Your task to perform on an android device: What's the weather going to be tomorrow? Image 0: 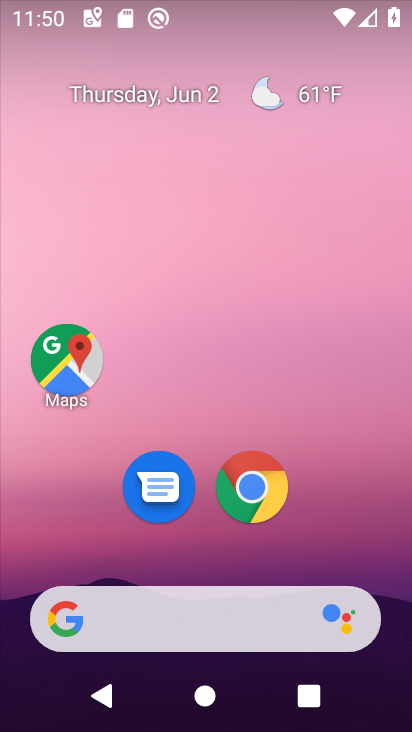
Step 0: drag from (339, 544) to (227, 121)
Your task to perform on an android device: What's the weather going to be tomorrow? Image 1: 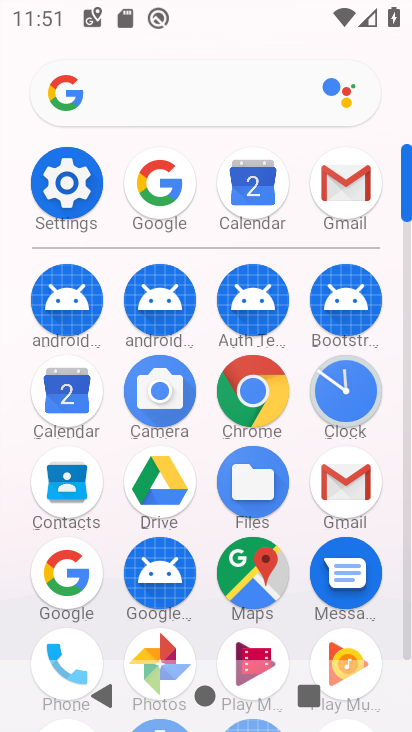
Step 1: click (155, 181)
Your task to perform on an android device: What's the weather going to be tomorrow? Image 2: 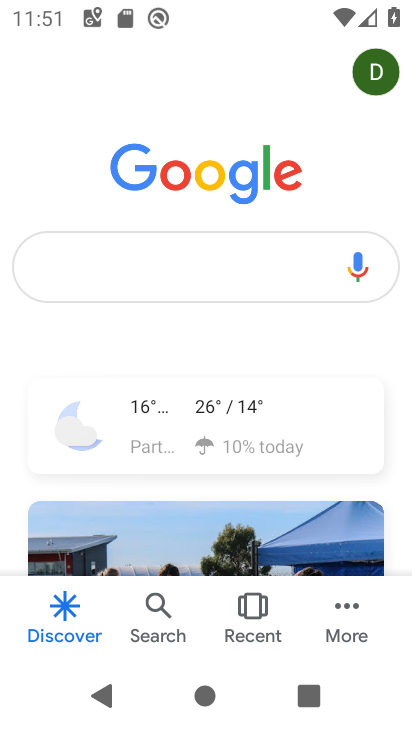
Step 2: click (157, 249)
Your task to perform on an android device: What's the weather going to be tomorrow? Image 3: 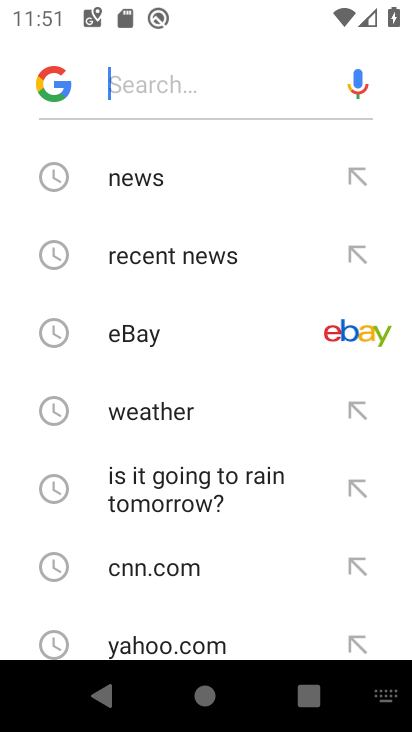
Step 3: type "What's the weather going to be tomorrow?"
Your task to perform on an android device: What's the weather going to be tomorrow? Image 4: 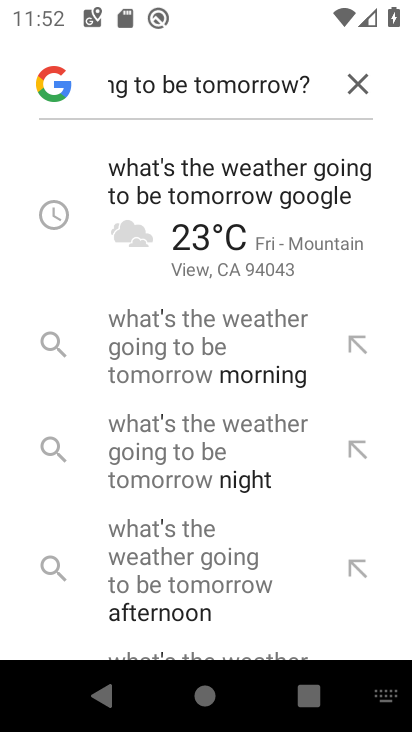
Step 4: click (228, 175)
Your task to perform on an android device: What's the weather going to be tomorrow? Image 5: 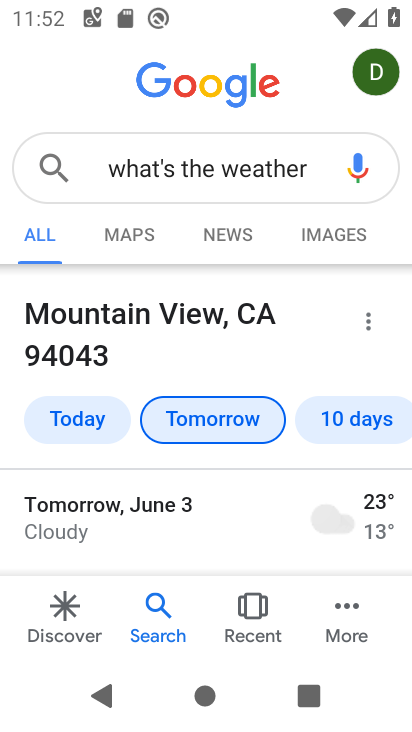
Step 5: task complete